Your task to perform on an android device: Go to display settings Image 0: 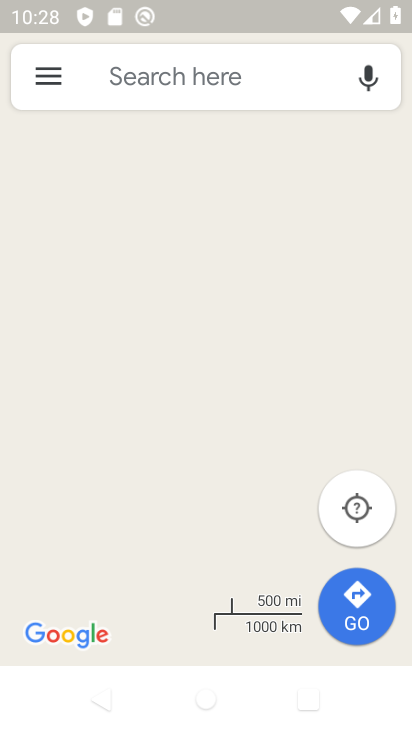
Step 0: press home button
Your task to perform on an android device: Go to display settings Image 1: 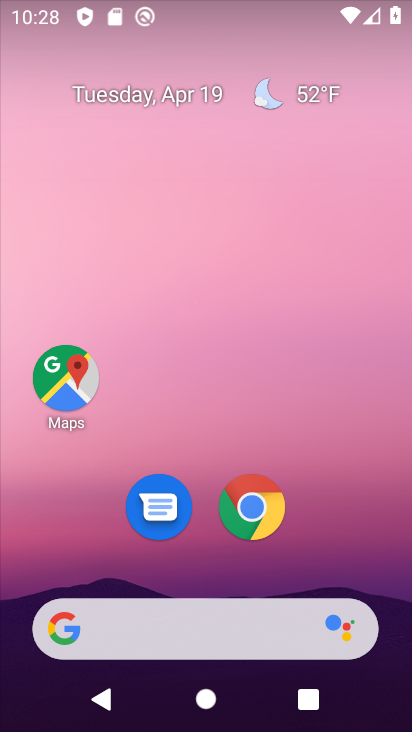
Step 1: drag from (361, 543) to (346, 65)
Your task to perform on an android device: Go to display settings Image 2: 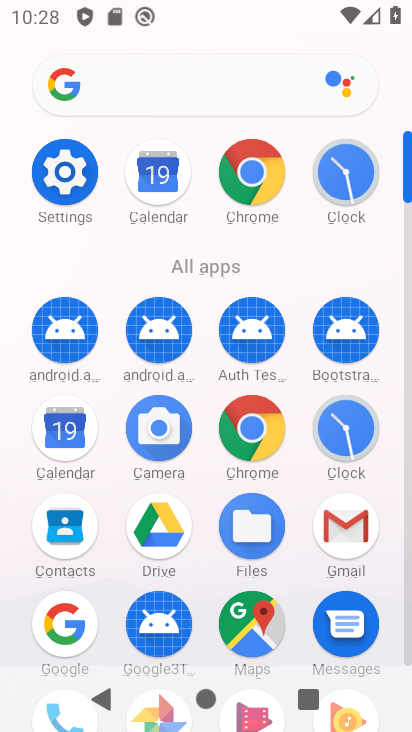
Step 2: click (73, 171)
Your task to perform on an android device: Go to display settings Image 3: 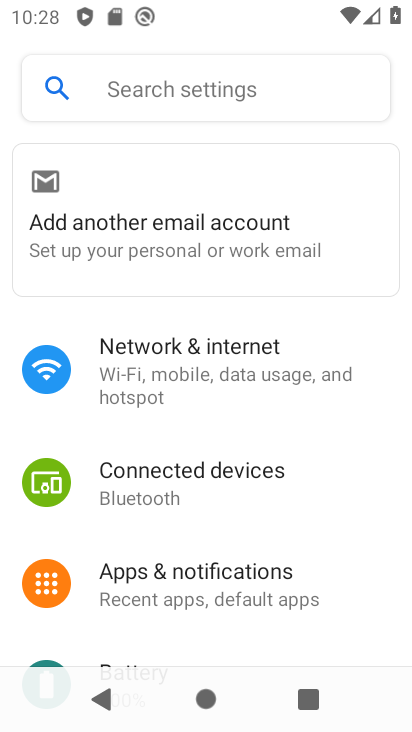
Step 3: drag from (356, 525) to (364, 237)
Your task to perform on an android device: Go to display settings Image 4: 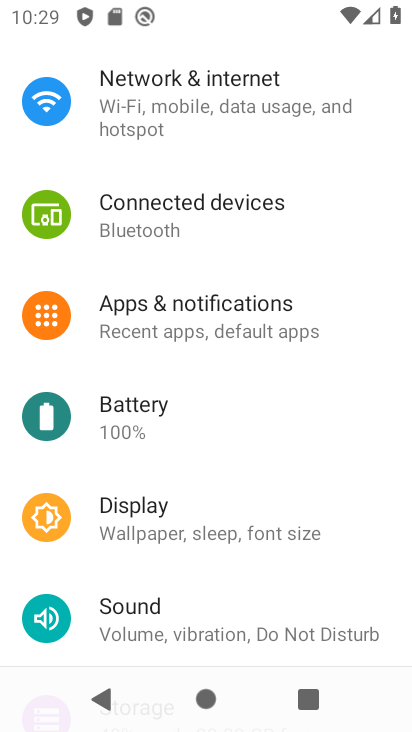
Step 4: drag from (354, 547) to (357, 308)
Your task to perform on an android device: Go to display settings Image 5: 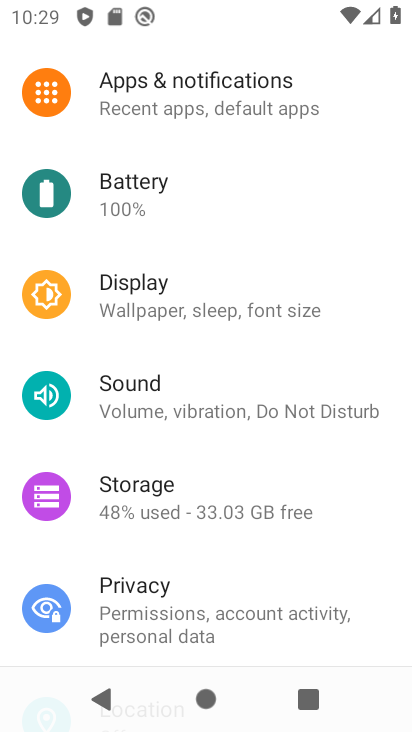
Step 5: click (184, 297)
Your task to perform on an android device: Go to display settings Image 6: 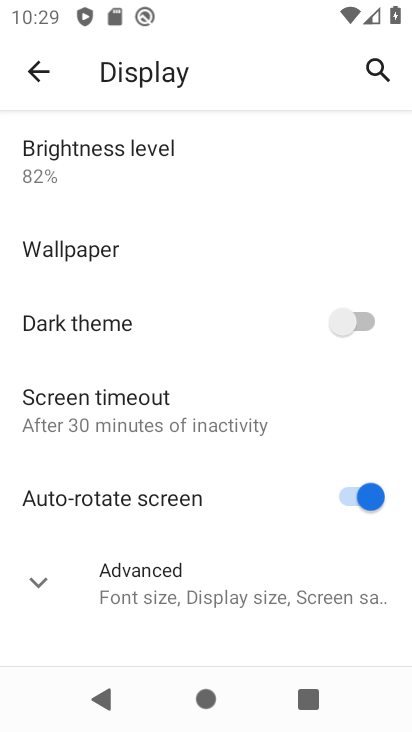
Step 6: click (172, 593)
Your task to perform on an android device: Go to display settings Image 7: 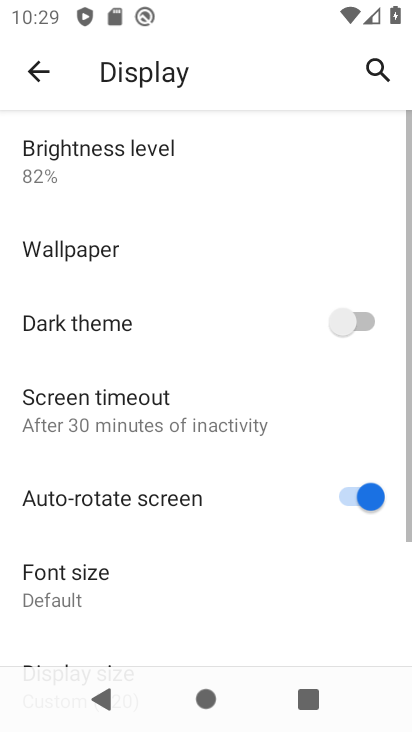
Step 7: task complete